Your task to perform on an android device: Go to internet settings Image 0: 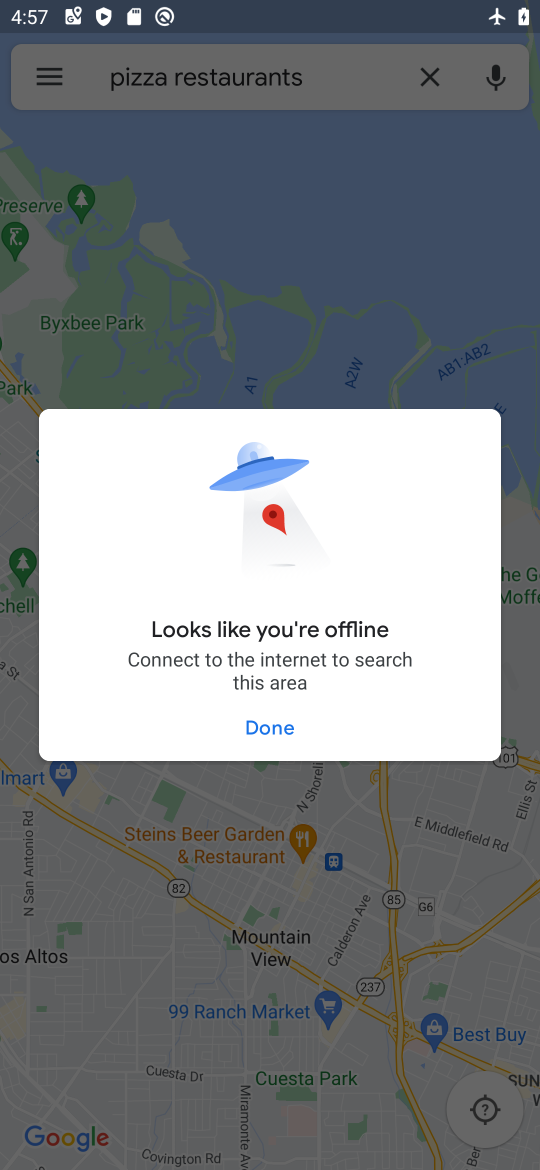
Step 0: press home button
Your task to perform on an android device: Go to internet settings Image 1: 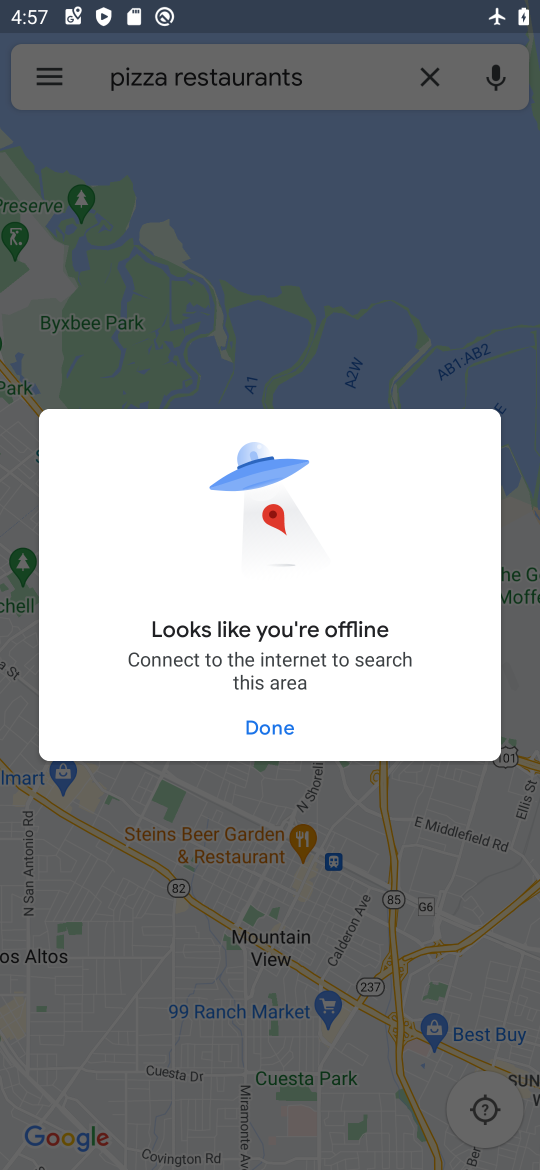
Step 1: press home button
Your task to perform on an android device: Go to internet settings Image 2: 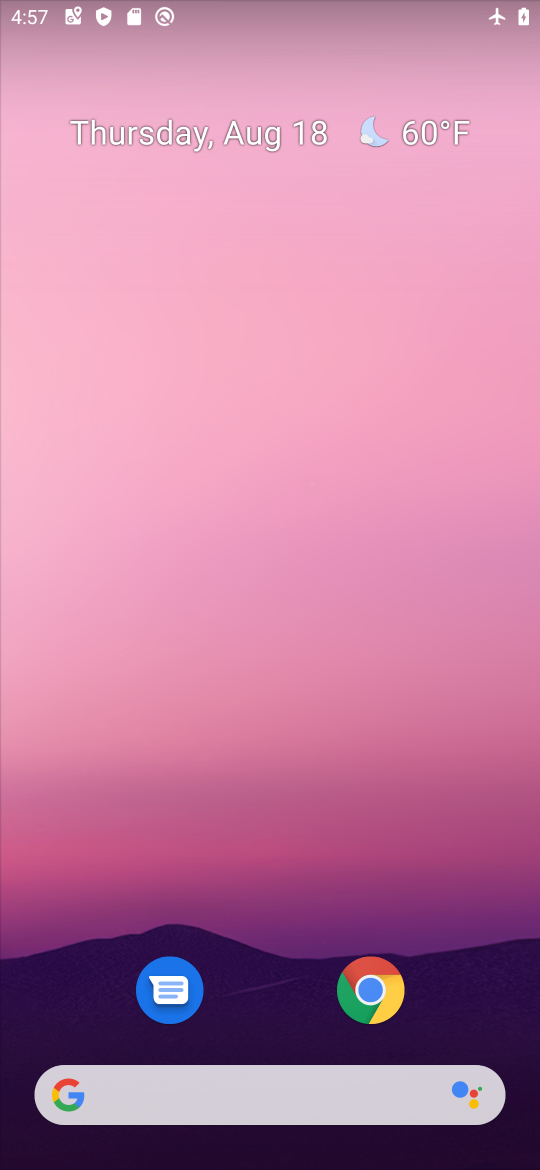
Step 2: drag from (251, 877) to (421, 161)
Your task to perform on an android device: Go to internet settings Image 3: 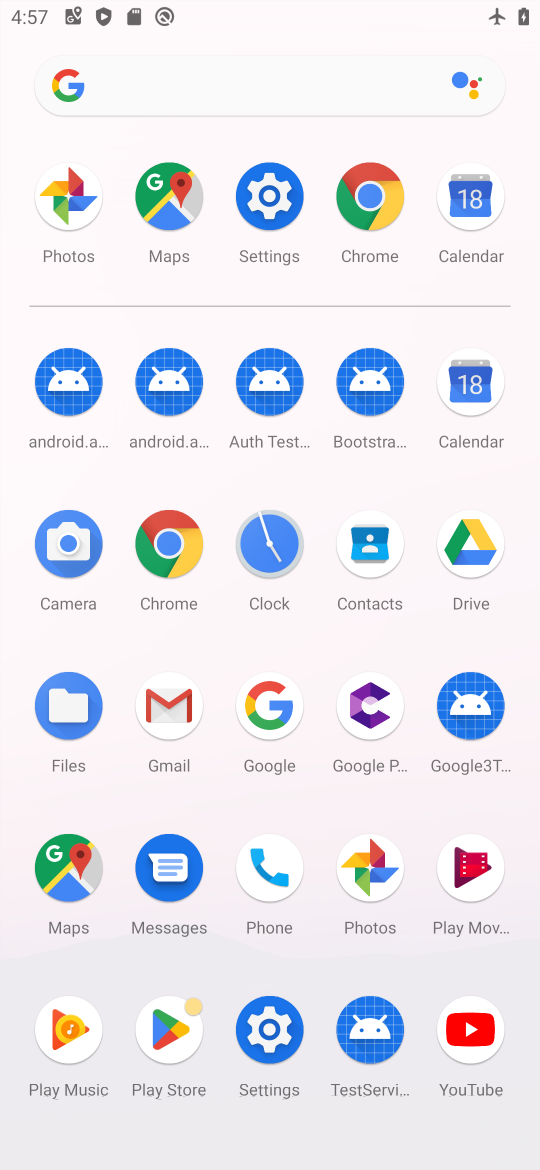
Step 3: click (282, 1004)
Your task to perform on an android device: Go to internet settings Image 4: 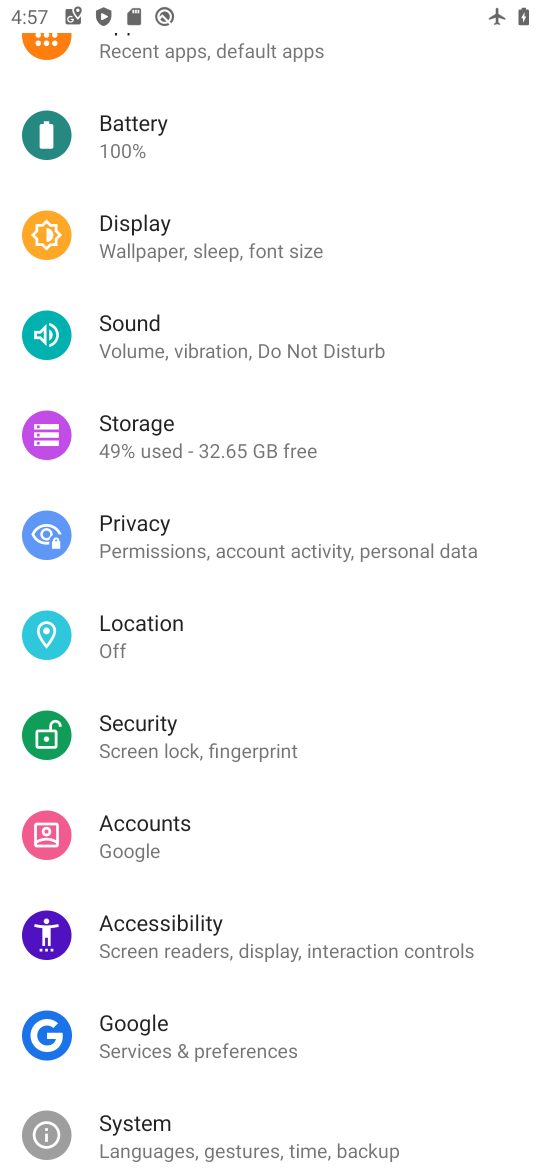
Step 4: drag from (327, 952) to (529, 224)
Your task to perform on an android device: Go to internet settings Image 5: 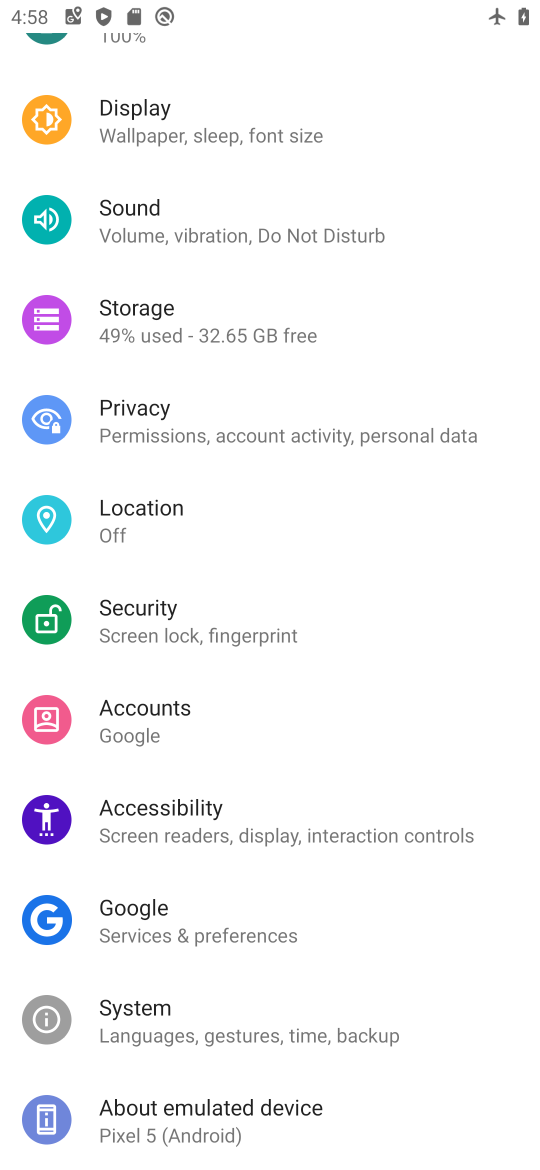
Step 5: drag from (349, 159) to (278, 1020)
Your task to perform on an android device: Go to internet settings Image 6: 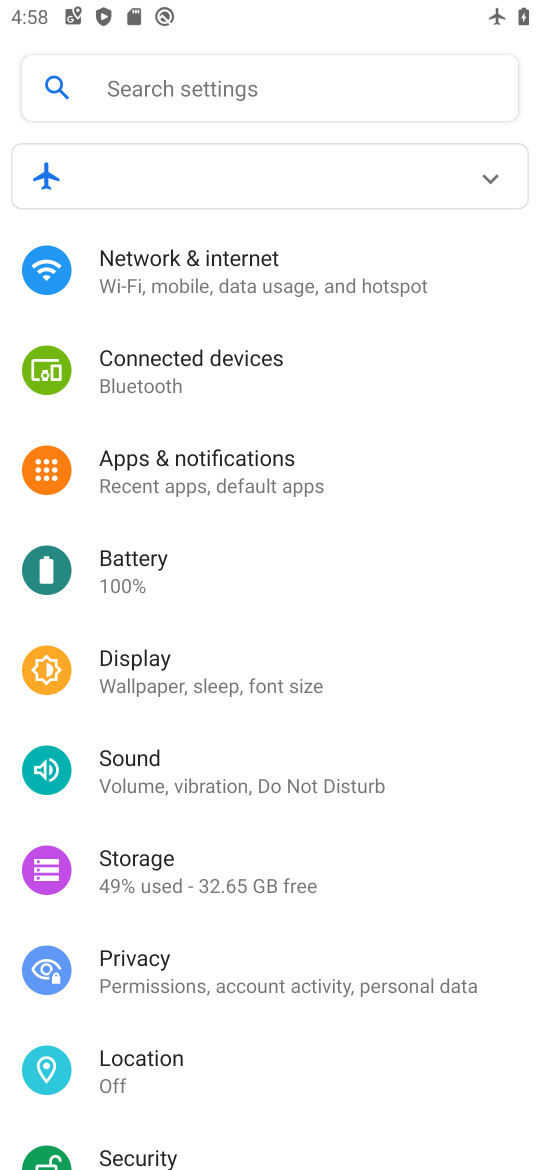
Step 6: click (236, 287)
Your task to perform on an android device: Go to internet settings Image 7: 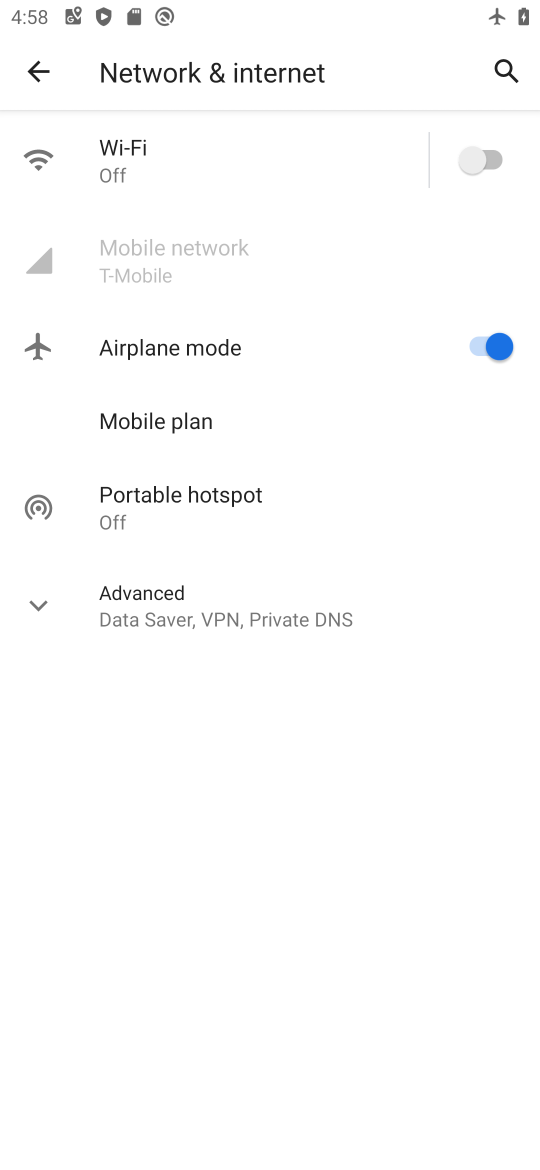
Step 7: task complete